Your task to perform on an android device: open chrome privacy settings Image 0: 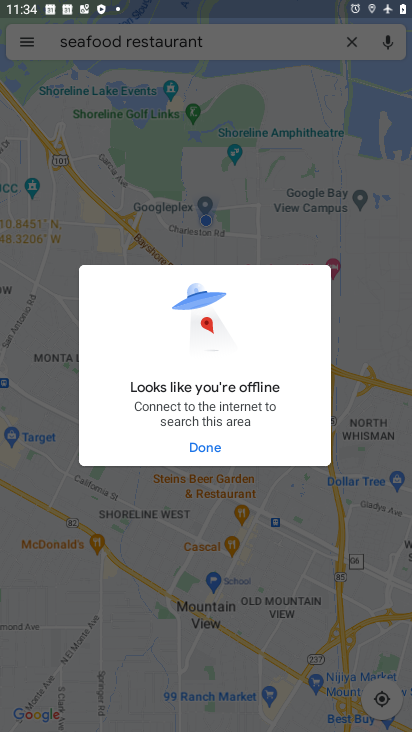
Step 0: click (210, 452)
Your task to perform on an android device: open chrome privacy settings Image 1: 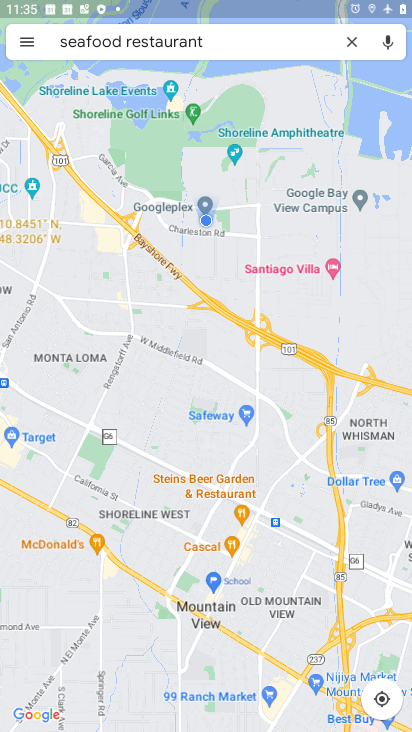
Step 1: press home button
Your task to perform on an android device: open chrome privacy settings Image 2: 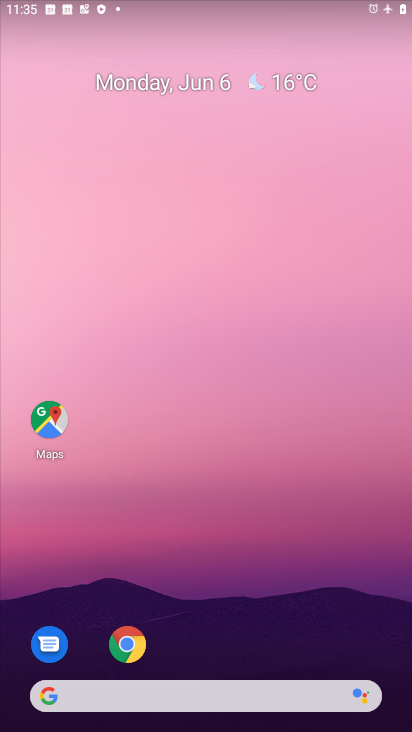
Step 2: drag from (205, 422) to (301, 47)
Your task to perform on an android device: open chrome privacy settings Image 3: 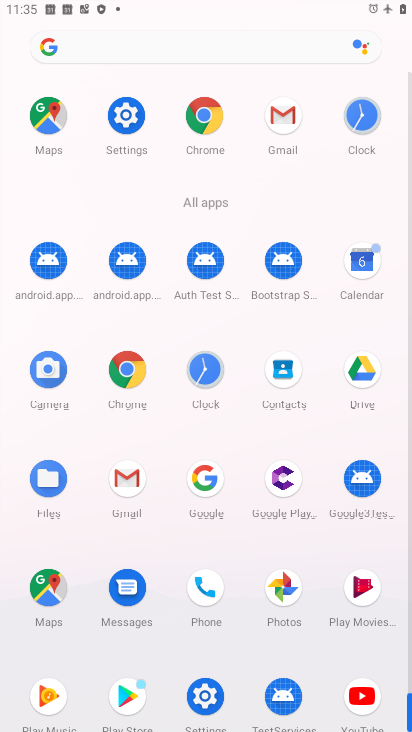
Step 3: click (140, 375)
Your task to perform on an android device: open chrome privacy settings Image 4: 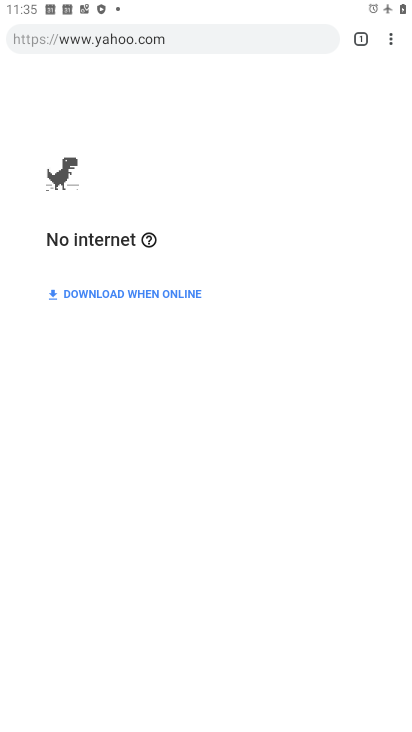
Step 4: click (390, 47)
Your task to perform on an android device: open chrome privacy settings Image 5: 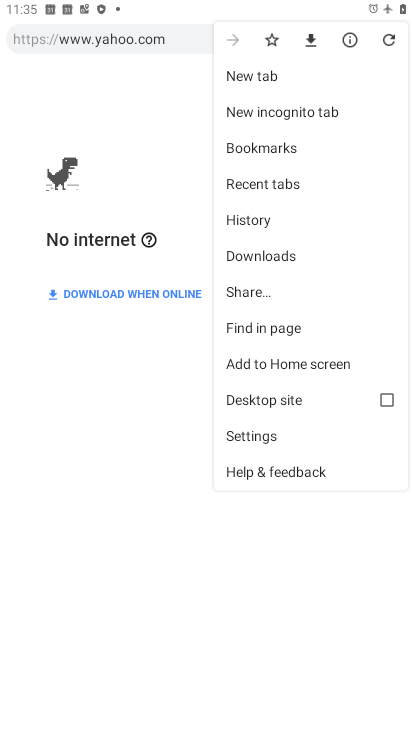
Step 5: click (286, 442)
Your task to perform on an android device: open chrome privacy settings Image 6: 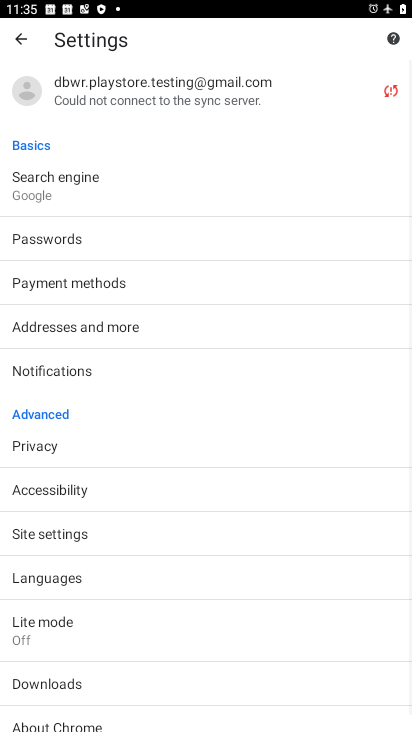
Step 6: click (96, 447)
Your task to perform on an android device: open chrome privacy settings Image 7: 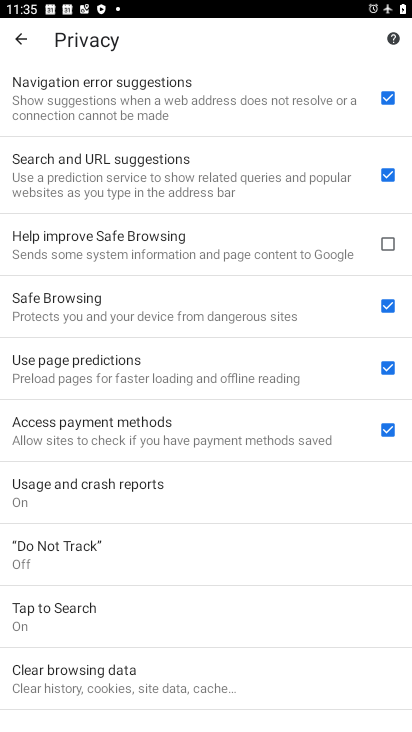
Step 7: task complete